Your task to perform on an android device: Open Google Chrome and click the shortcut for Amazon.com Image 0: 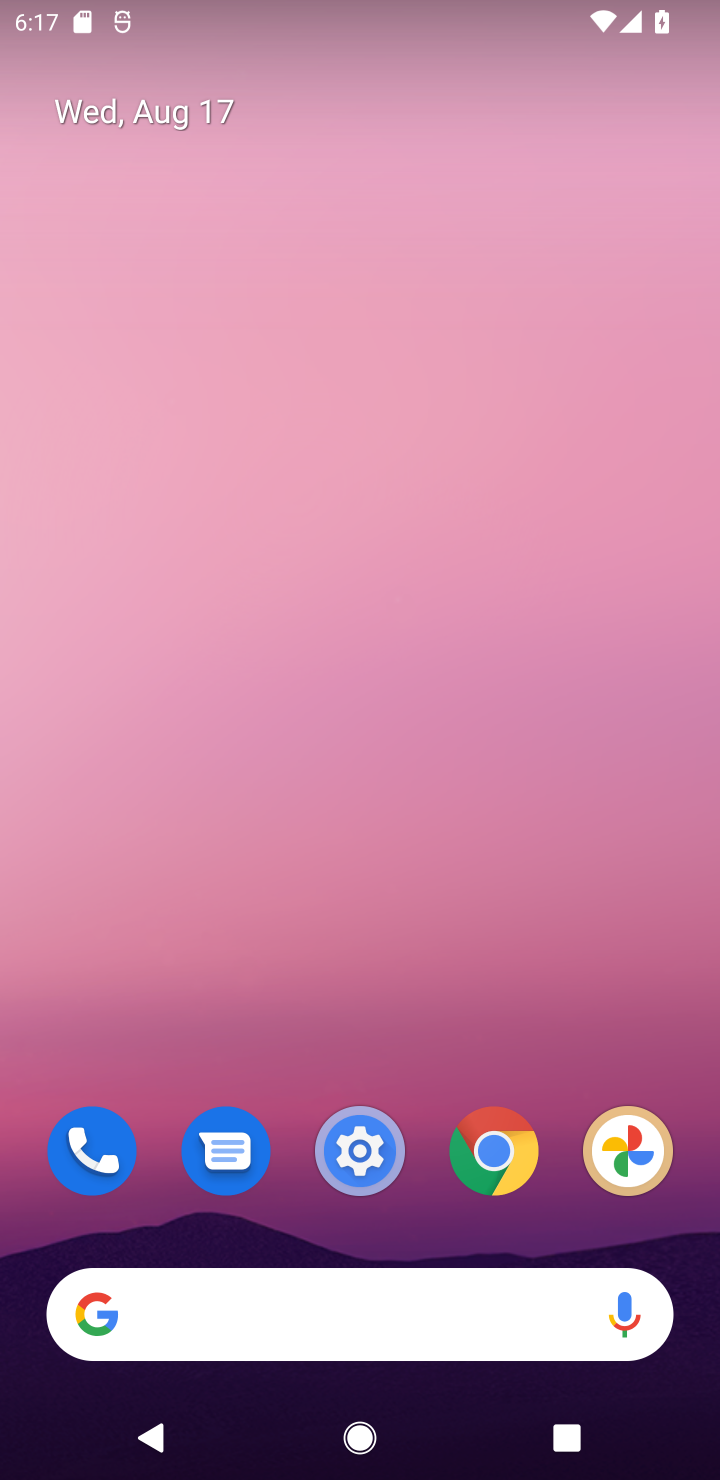
Step 0: click (515, 1159)
Your task to perform on an android device: Open Google Chrome and click the shortcut for Amazon.com Image 1: 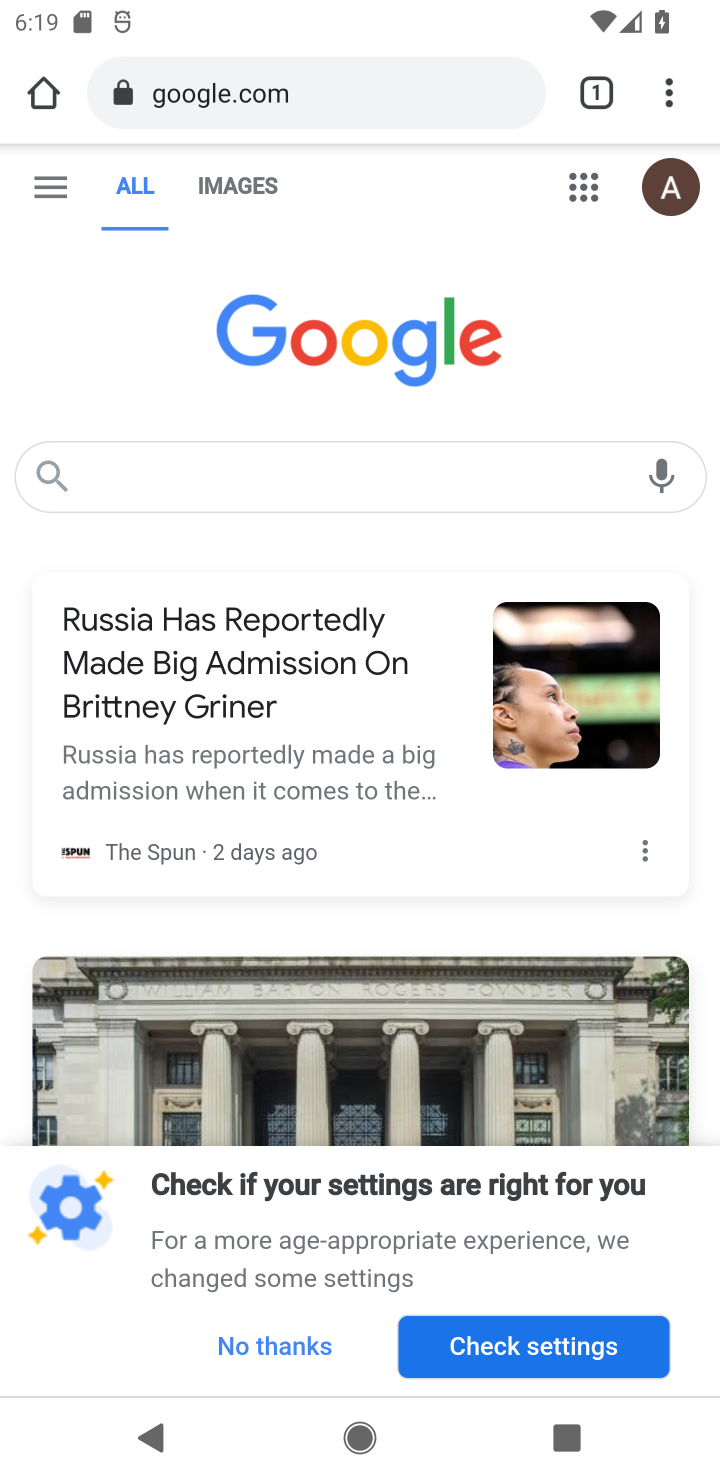
Step 1: task complete